Your task to perform on an android device: set the stopwatch Image 0: 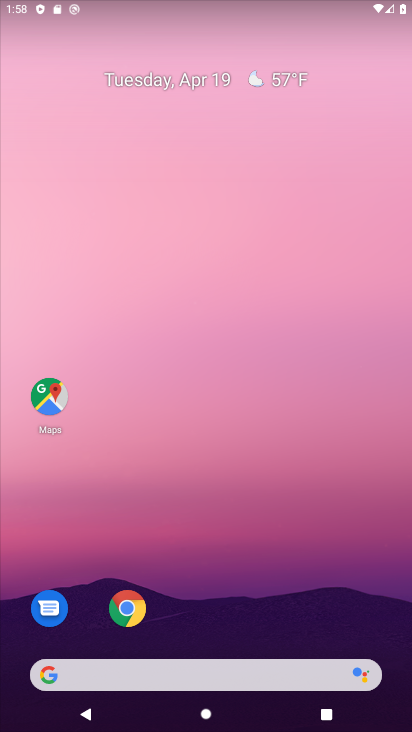
Step 0: drag from (229, 623) to (313, 180)
Your task to perform on an android device: set the stopwatch Image 1: 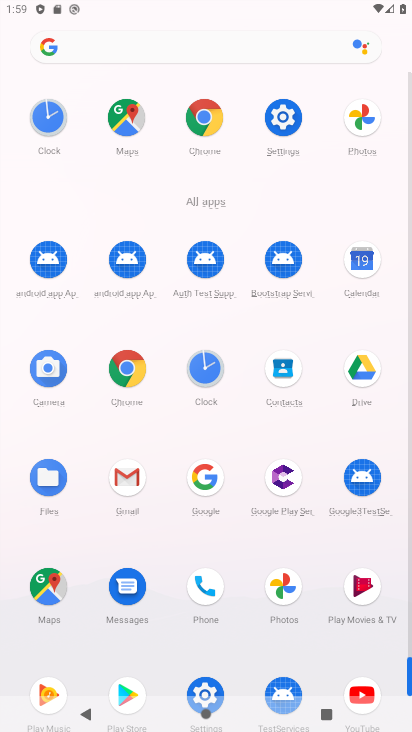
Step 1: click (205, 367)
Your task to perform on an android device: set the stopwatch Image 2: 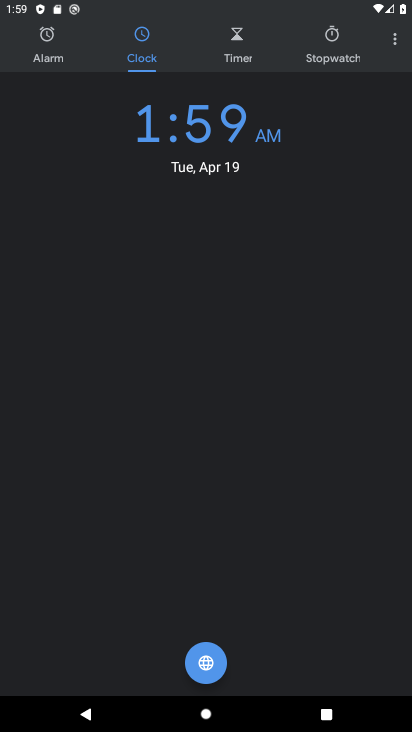
Step 2: click (337, 47)
Your task to perform on an android device: set the stopwatch Image 3: 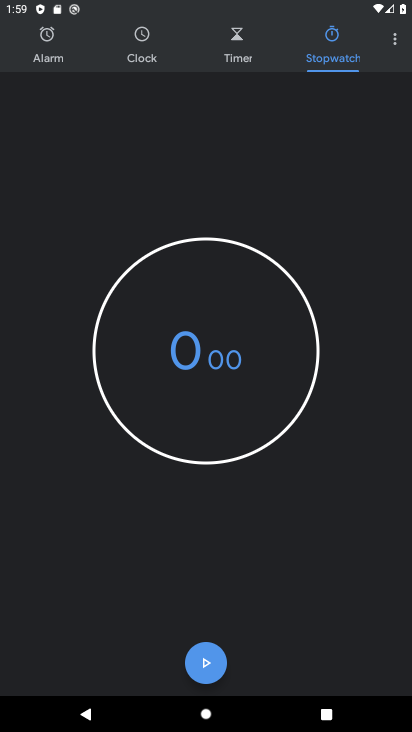
Step 3: click (216, 669)
Your task to perform on an android device: set the stopwatch Image 4: 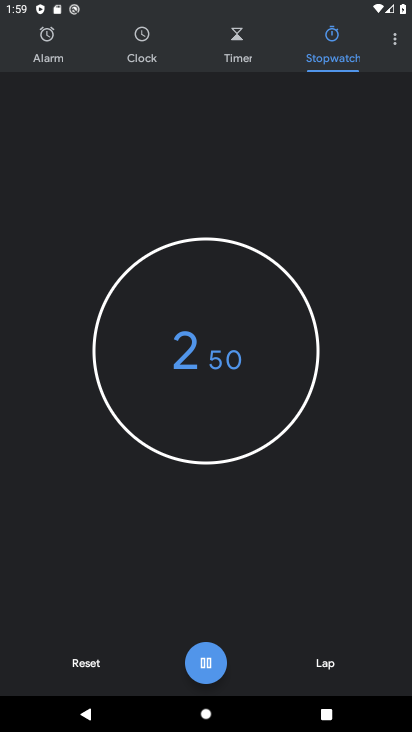
Step 4: task complete